Your task to perform on an android device: turn on the 24-hour format for clock Image 0: 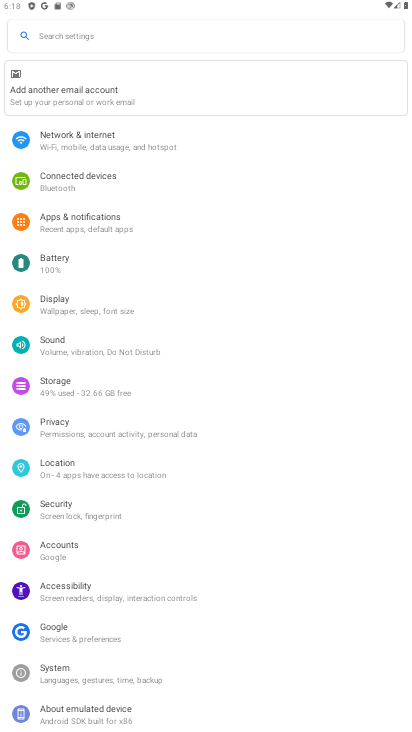
Step 0: press back button
Your task to perform on an android device: turn on the 24-hour format for clock Image 1: 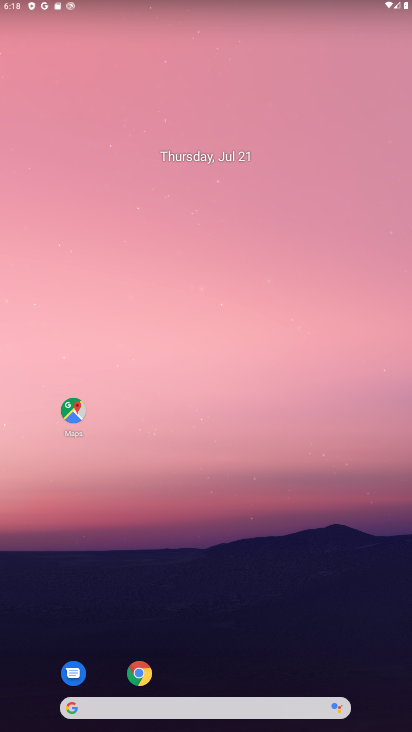
Step 1: drag from (193, 665) to (180, 169)
Your task to perform on an android device: turn on the 24-hour format for clock Image 2: 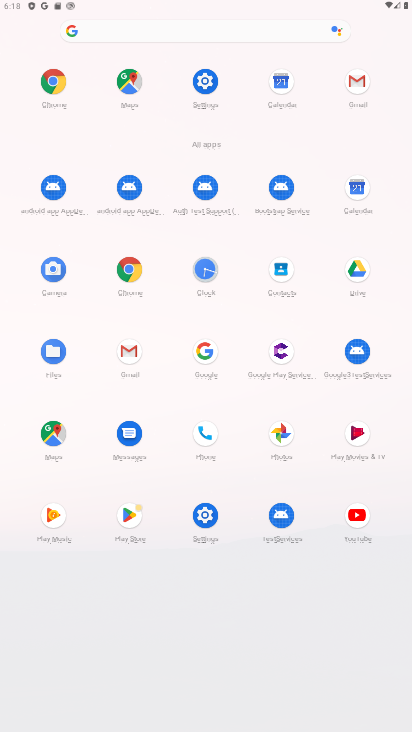
Step 2: click (200, 271)
Your task to perform on an android device: turn on the 24-hour format for clock Image 3: 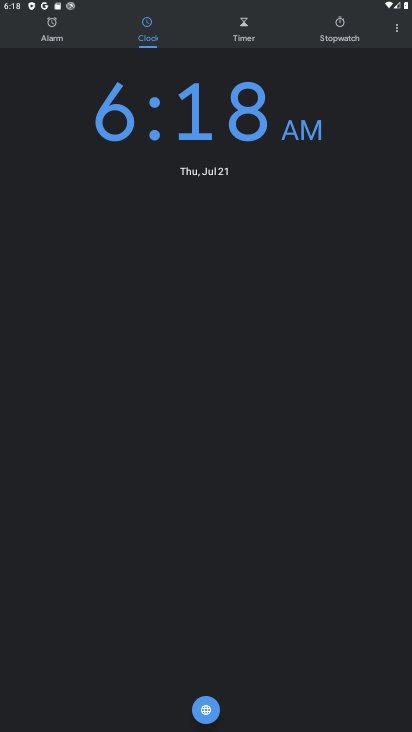
Step 3: click (395, 33)
Your task to perform on an android device: turn on the 24-hour format for clock Image 4: 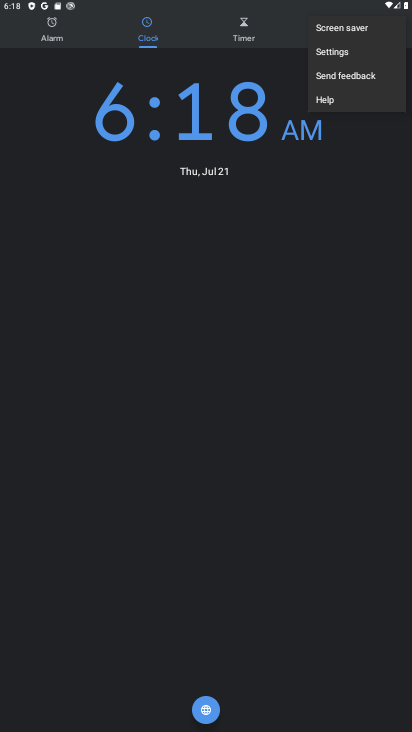
Step 4: click (339, 50)
Your task to perform on an android device: turn on the 24-hour format for clock Image 5: 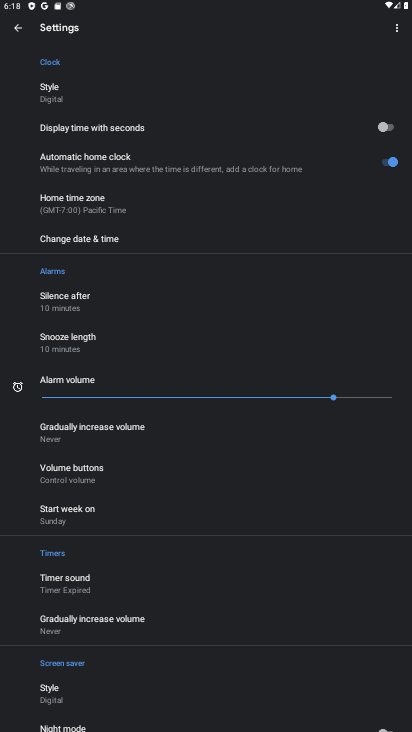
Step 5: click (83, 241)
Your task to perform on an android device: turn on the 24-hour format for clock Image 6: 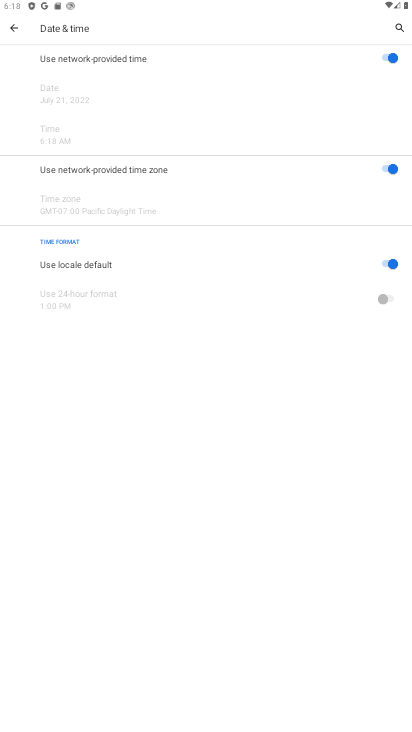
Step 6: click (386, 263)
Your task to perform on an android device: turn on the 24-hour format for clock Image 7: 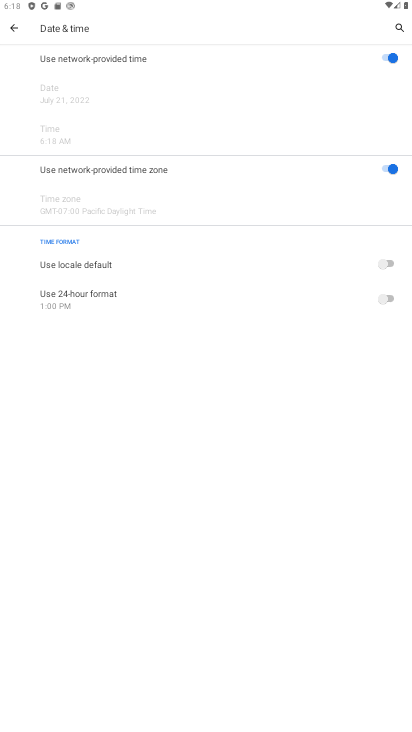
Step 7: click (397, 296)
Your task to perform on an android device: turn on the 24-hour format for clock Image 8: 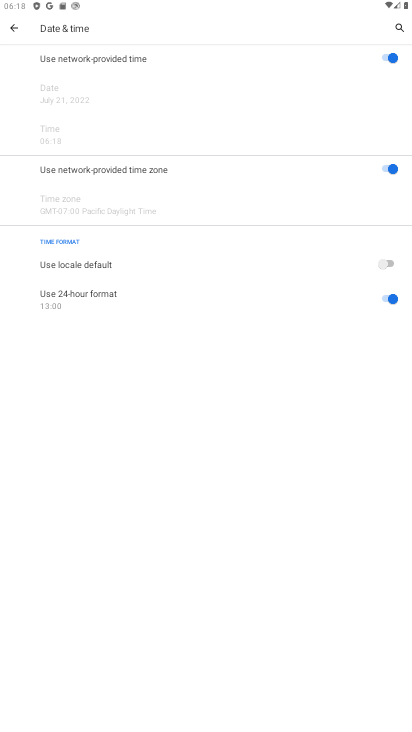
Step 8: task complete